Your task to perform on an android device: turn off sleep mode Image 0: 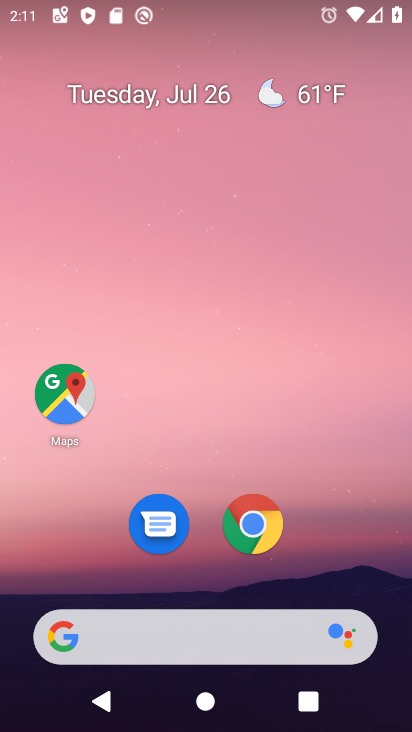
Step 0: press home button
Your task to perform on an android device: turn off sleep mode Image 1: 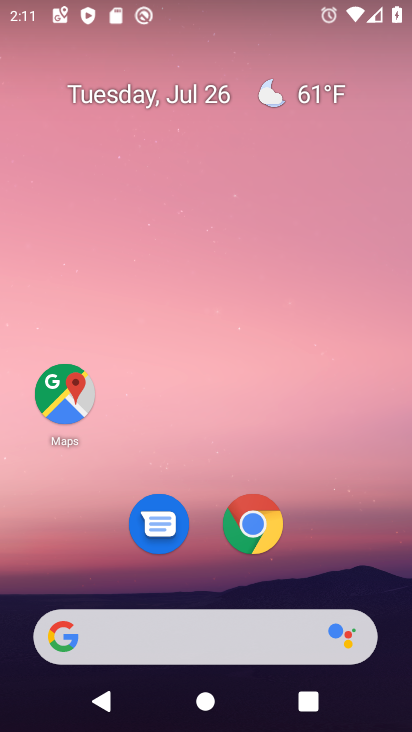
Step 1: drag from (151, 642) to (241, 51)
Your task to perform on an android device: turn off sleep mode Image 2: 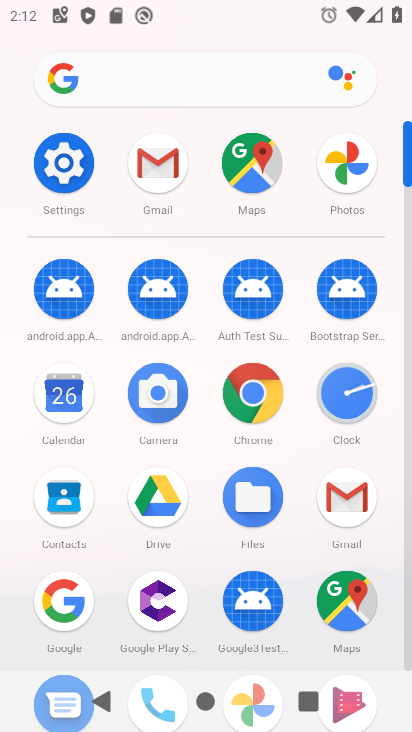
Step 2: click (69, 173)
Your task to perform on an android device: turn off sleep mode Image 3: 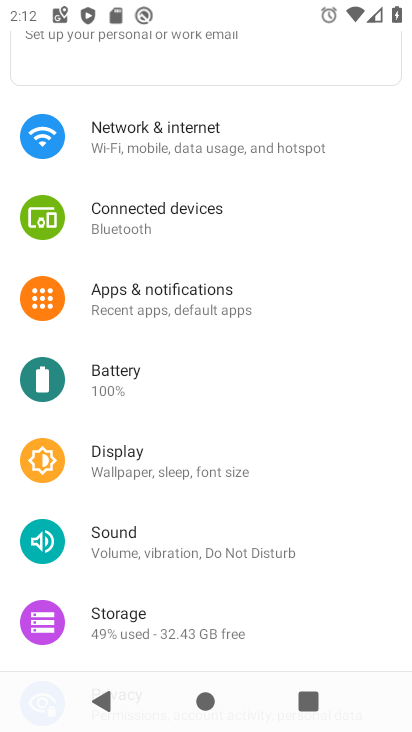
Step 3: drag from (286, 255) to (270, 580)
Your task to perform on an android device: turn off sleep mode Image 4: 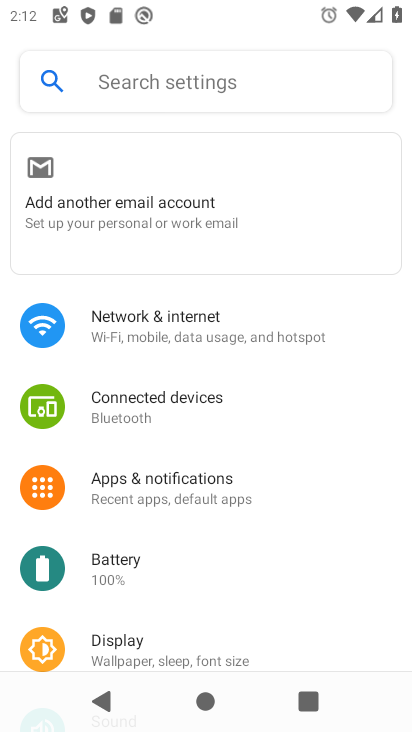
Step 4: drag from (261, 537) to (299, 216)
Your task to perform on an android device: turn off sleep mode Image 5: 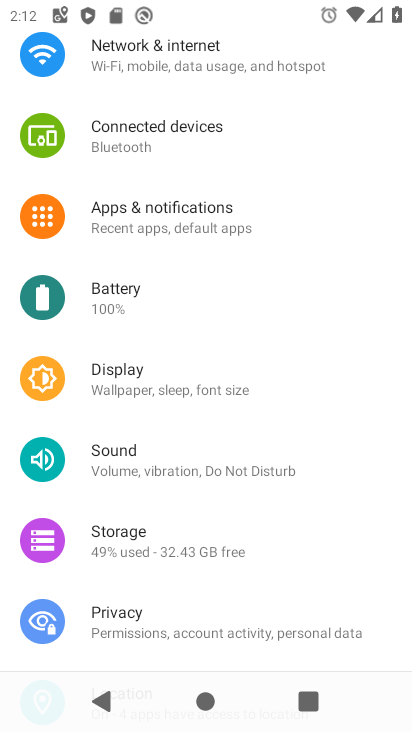
Step 5: click (136, 388)
Your task to perform on an android device: turn off sleep mode Image 6: 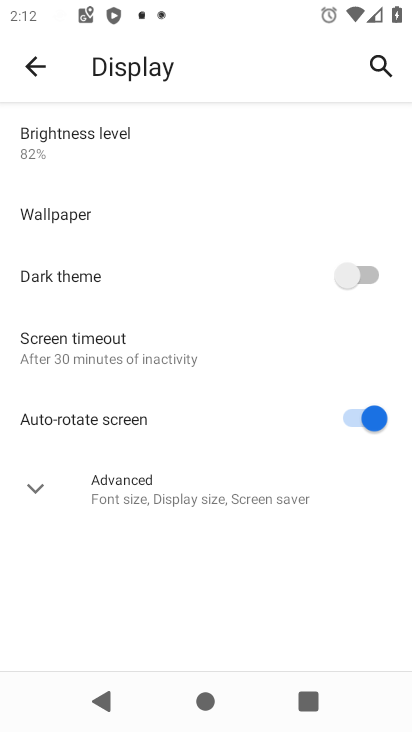
Step 6: click (69, 482)
Your task to perform on an android device: turn off sleep mode Image 7: 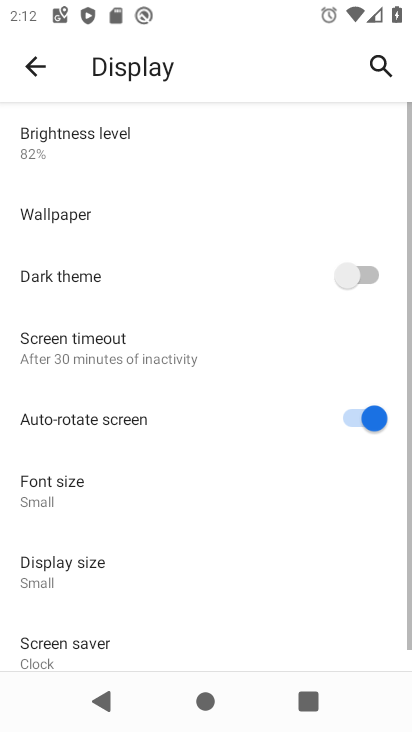
Step 7: task complete